Your task to perform on an android device: check out phone information Image 0: 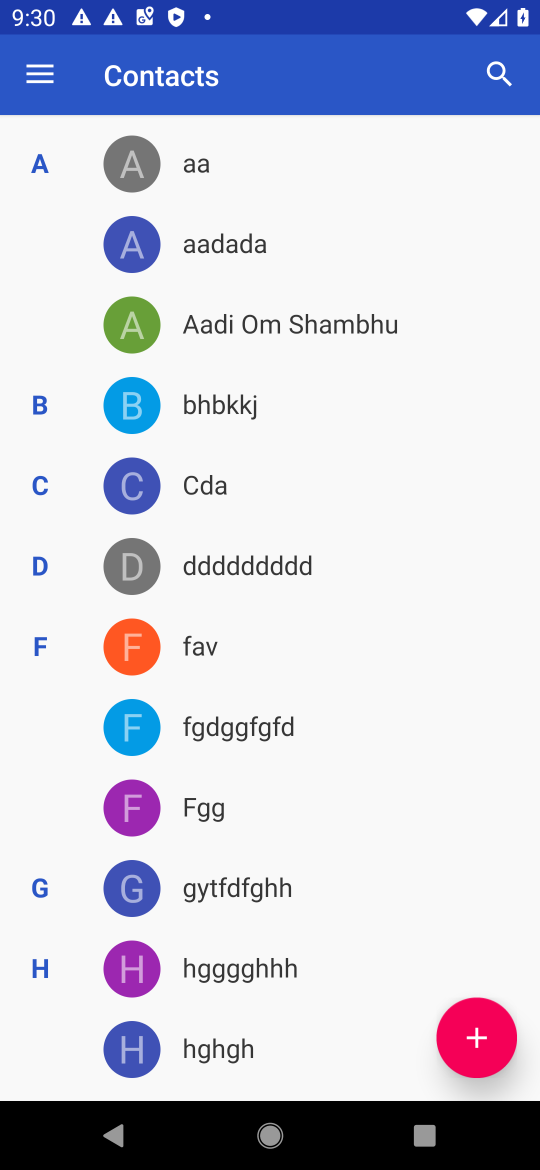
Step 0: press home button
Your task to perform on an android device: check out phone information Image 1: 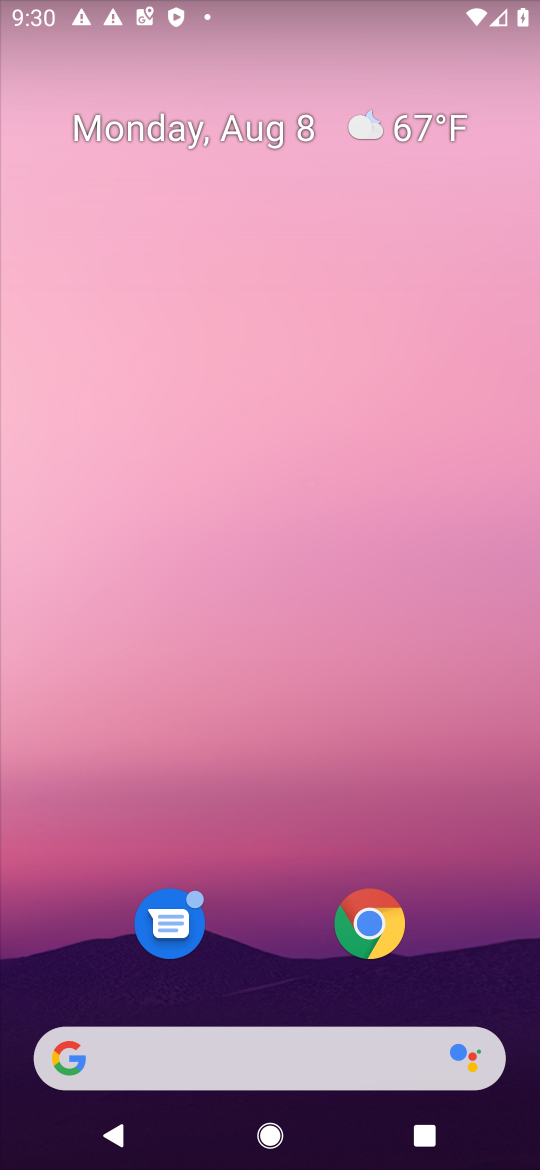
Step 1: drag from (37, 1117) to (382, 226)
Your task to perform on an android device: check out phone information Image 2: 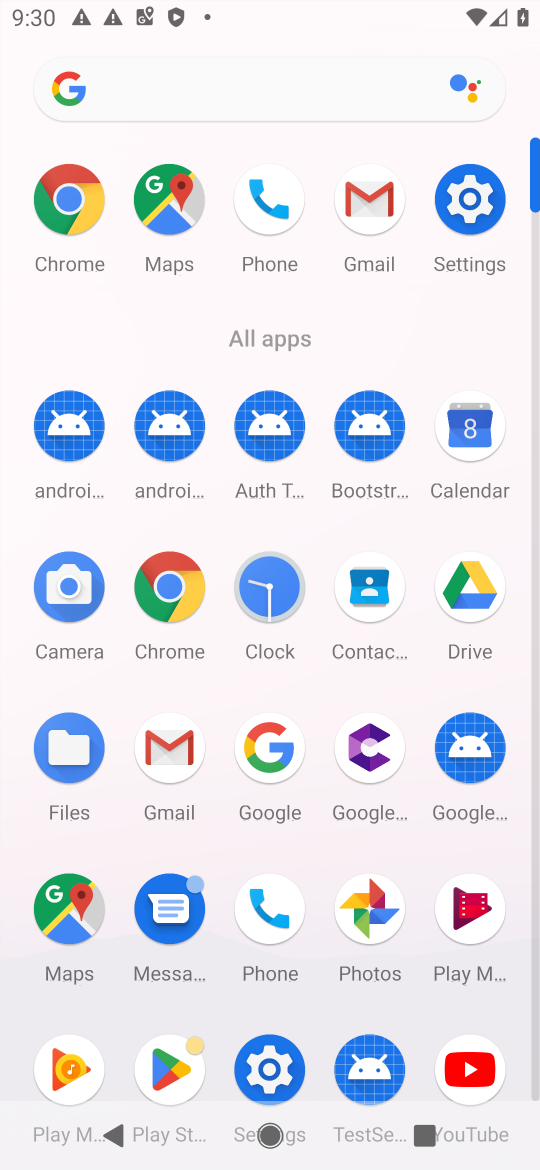
Step 2: click (289, 942)
Your task to perform on an android device: check out phone information Image 3: 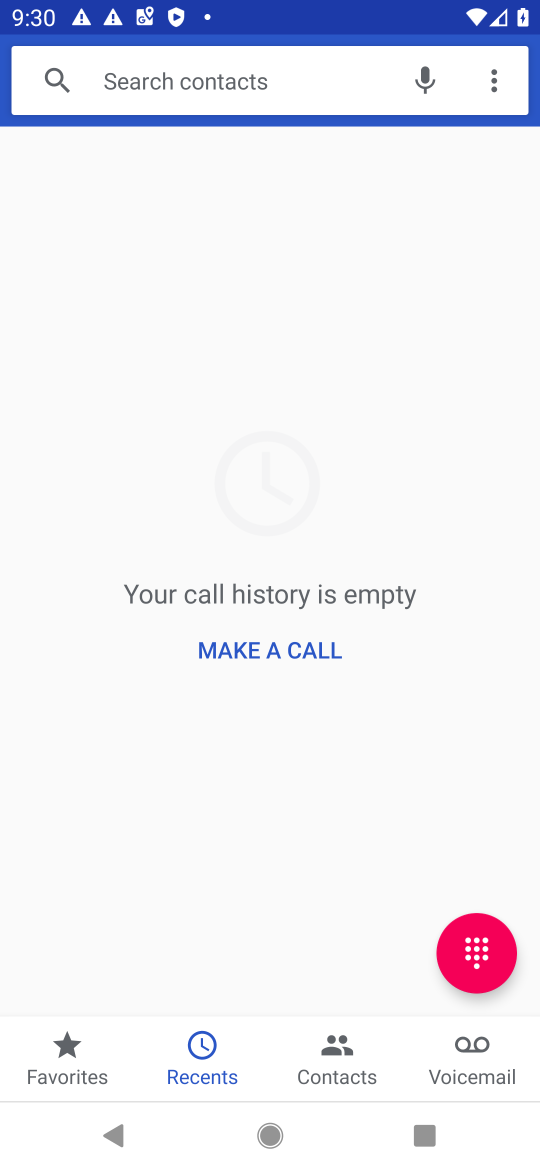
Step 3: click (365, 1059)
Your task to perform on an android device: check out phone information Image 4: 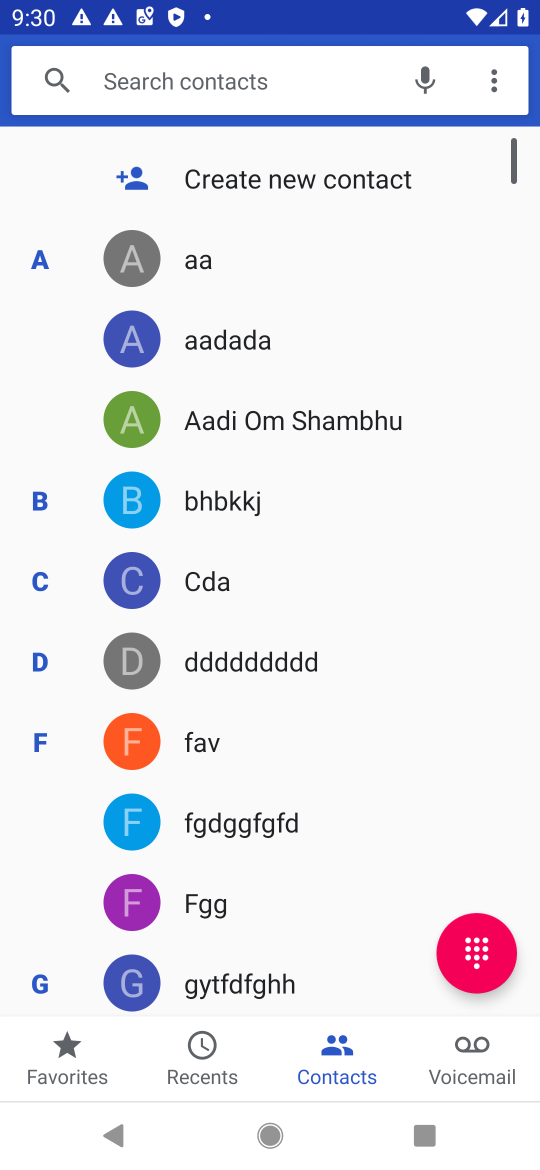
Step 4: task complete